Your task to perform on an android device: turn on airplane mode Image 0: 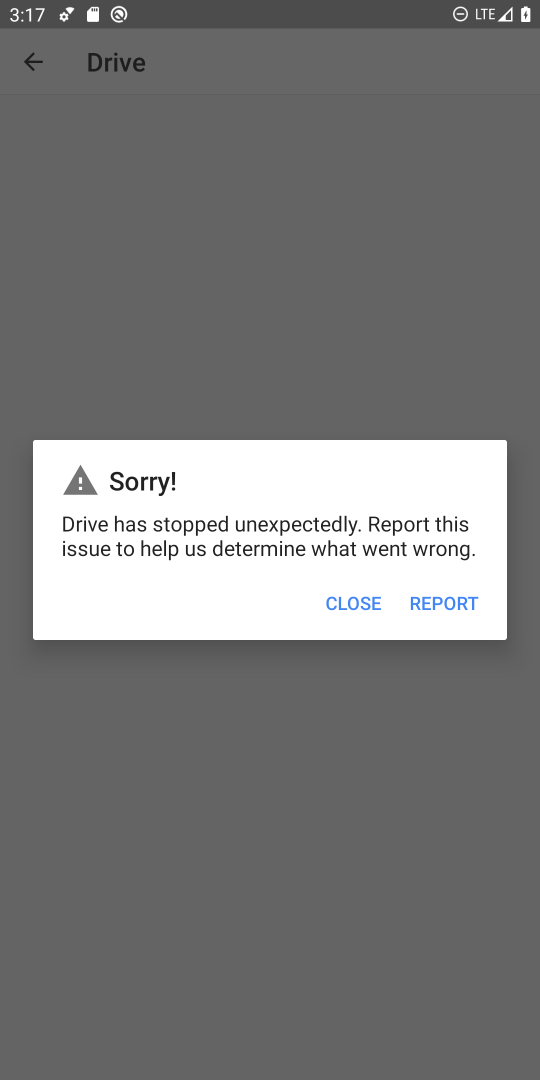
Step 0: drag from (399, 17) to (389, 676)
Your task to perform on an android device: turn on airplane mode Image 1: 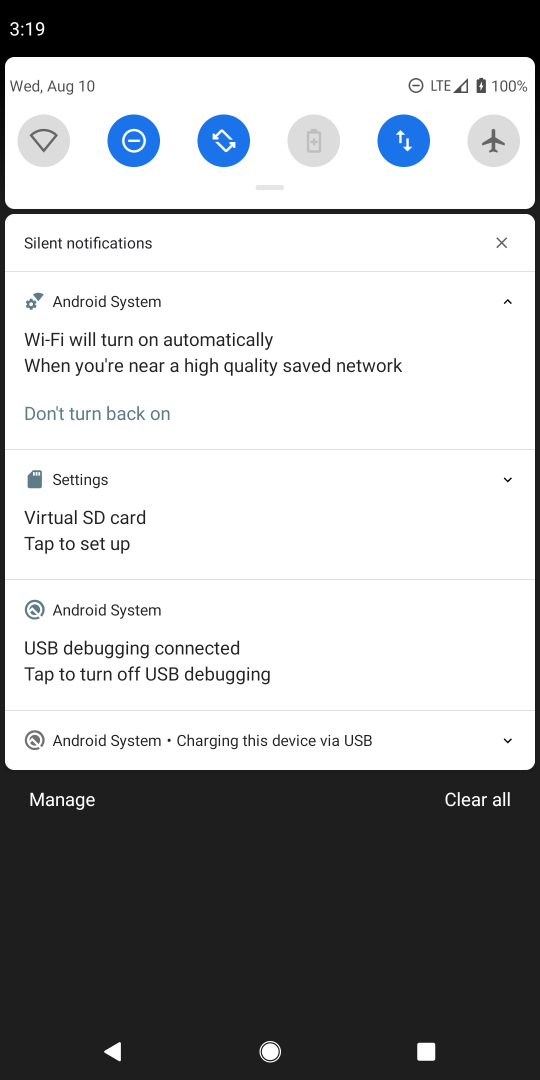
Step 1: task complete